Your task to perform on an android device: Show me recent news Image 0: 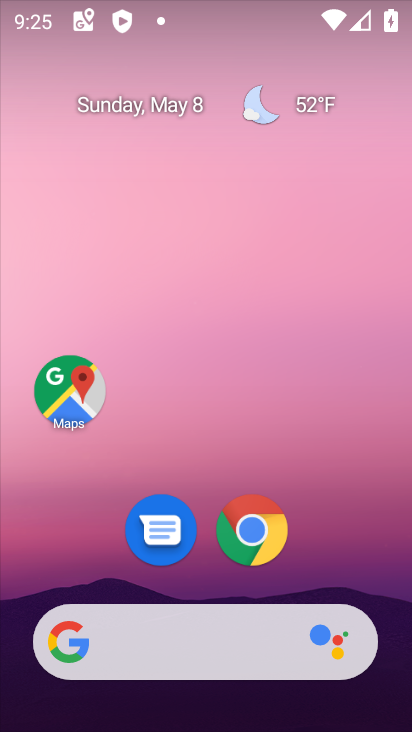
Step 0: click (181, 607)
Your task to perform on an android device: Show me recent news Image 1: 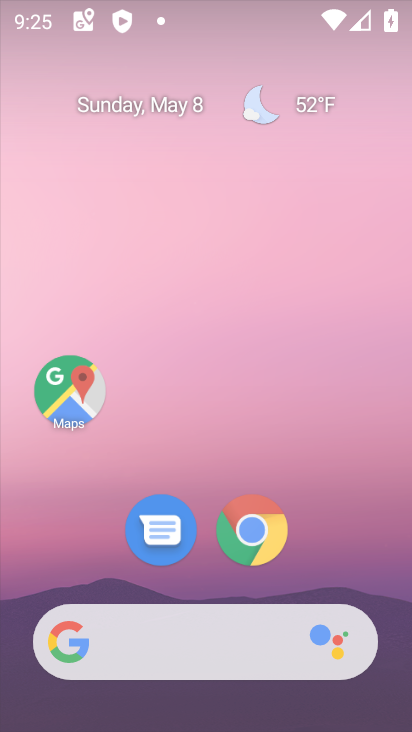
Step 1: drag from (173, 604) to (163, 261)
Your task to perform on an android device: Show me recent news Image 2: 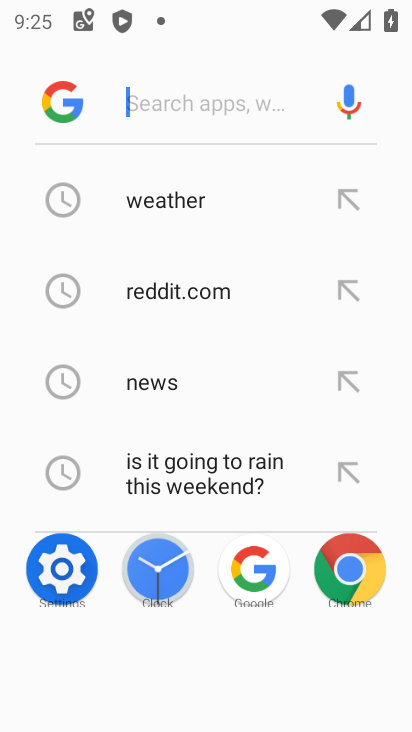
Step 2: drag from (92, 497) to (87, 255)
Your task to perform on an android device: Show me recent news Image 3: 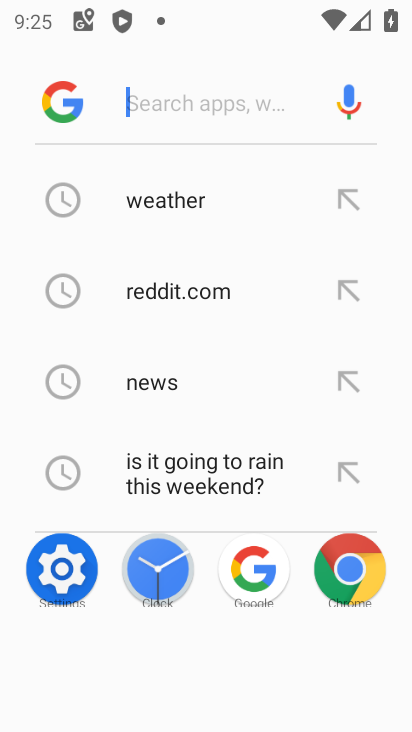
Step 3: drag from (178, 484) to (167, 281)
Your task to perform on an android device: Show me recent news Image 4: 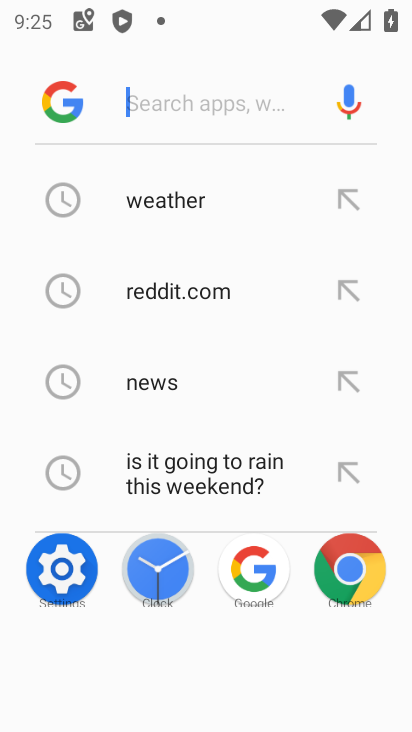
Step 4: drag from (140, 206) to (128, 460)
Your task to perform on an android device: Show me recent news Image 5: 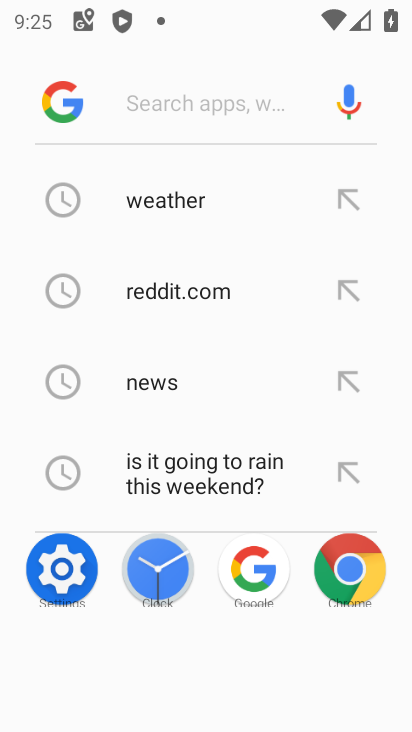
Step 5: drag from (109, 312) to (109, 500)
Your task to perform on an android device: Show me recent news Image 6: 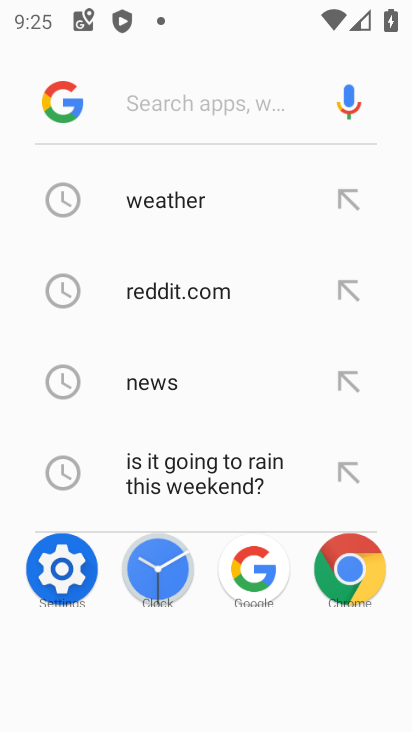
Step 6: type "recent news"
Your task to perform on an android device: Show me recent news Image 7: 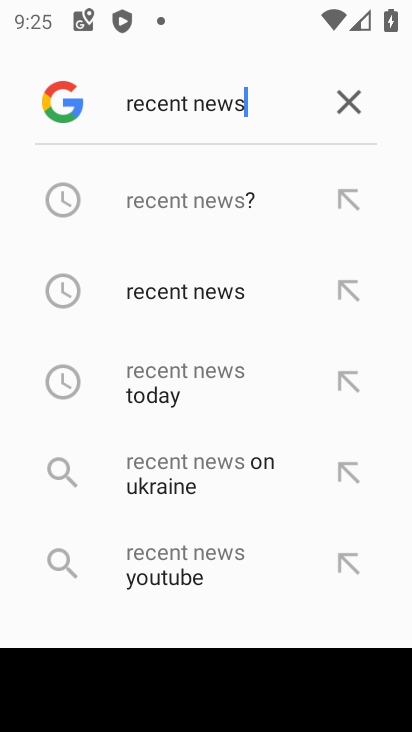
Step 7: click (214, 208)
Your task to perform on an android device: Show me recent news Image 8: 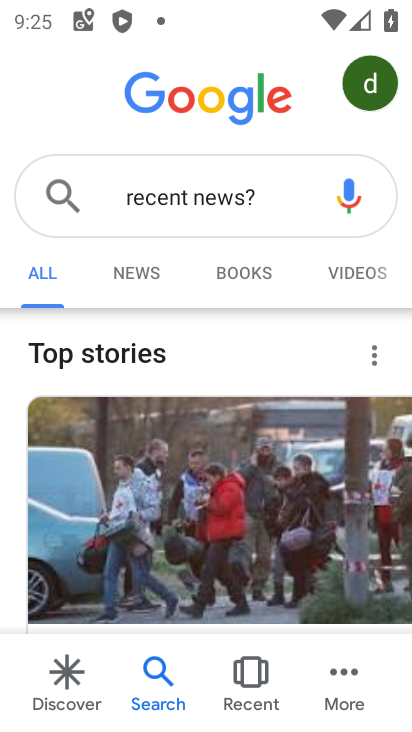
Step 8: click (138, 283)
Your task to perform on an android device: Show me recent news Image 9: 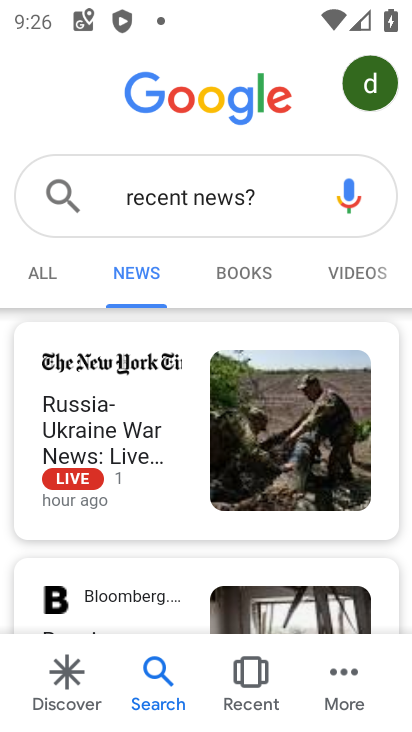
Step 9: task complete